Your task to perform on an android device: Check the news Image 0: 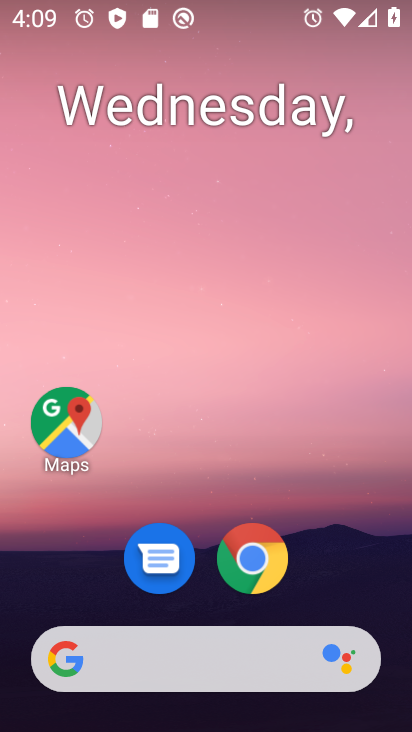
Step 0: drag from (135, 632) to (172, 190)
Your task to perform on an android device: Check the news Image 1: 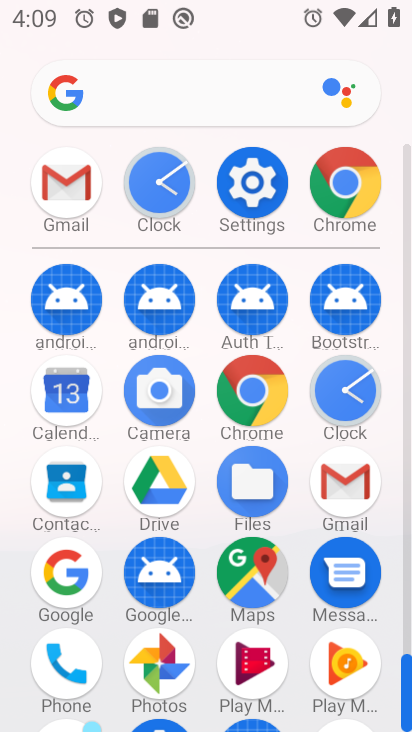
Step 1: click (64, 589)
Your task to perform on an android device: Check the news Image 2: 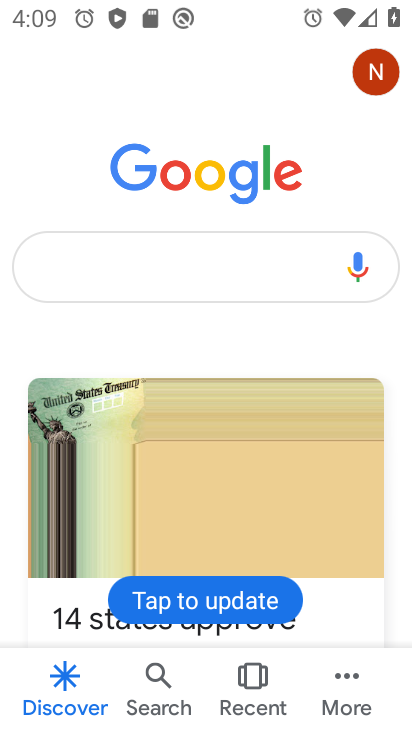
Step 2: click (111, 269)
Your task to perform on an android device: Check the news Image 3: 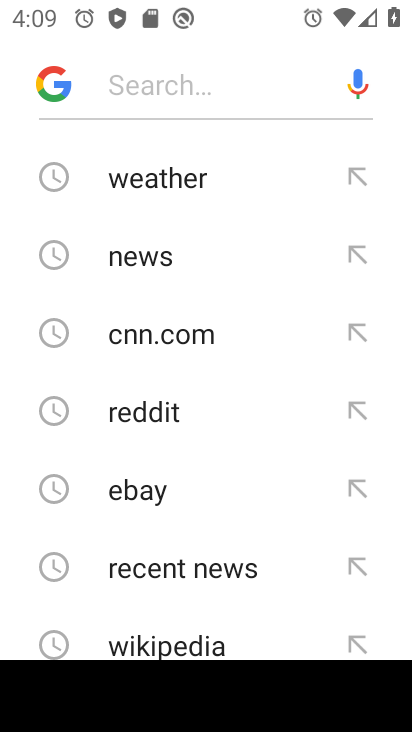
Step 3: click (131, 261)
Your task to perform on an android device: Check the news Image 4: 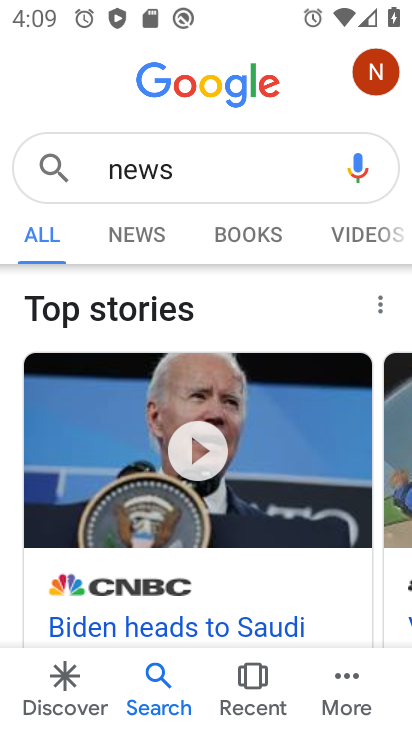
Step 4: task complete